Your task to perform on an android device: Open my contact list Image 0: 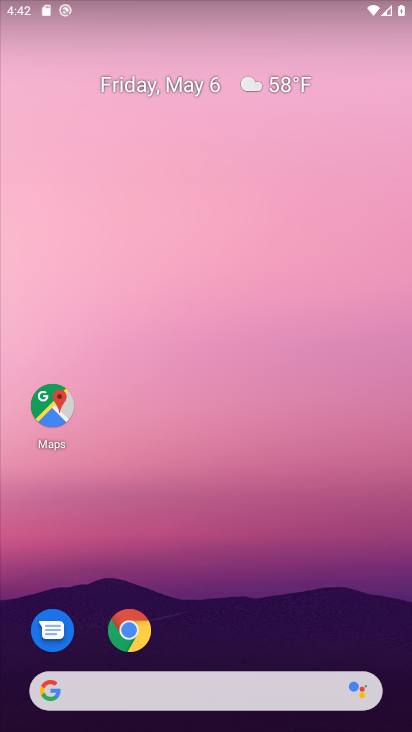
Step 0: drag from (268, 668) to (346, 54)
Your task to perform on an android device: Open my contact list Image 1: 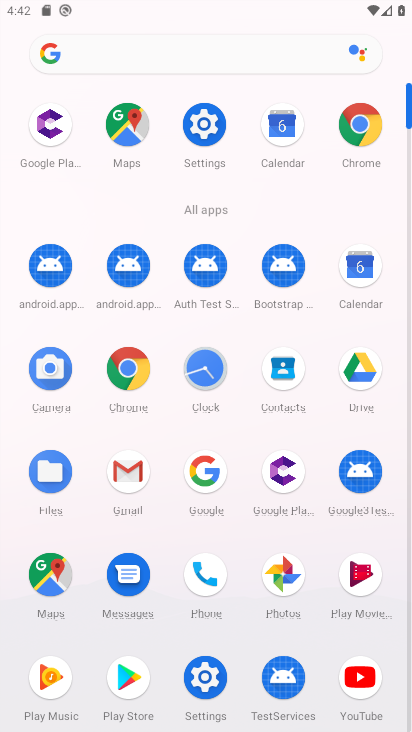
Step 1: click (283, 378)
Your task to perform on an android device: Open my contact list Image 2: 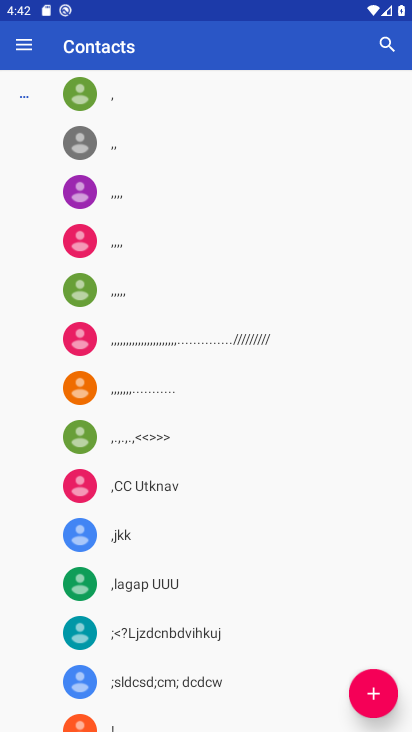
Step 2: task complete